Your task to perform on an android device: find which apps use the phone's location Image 0: 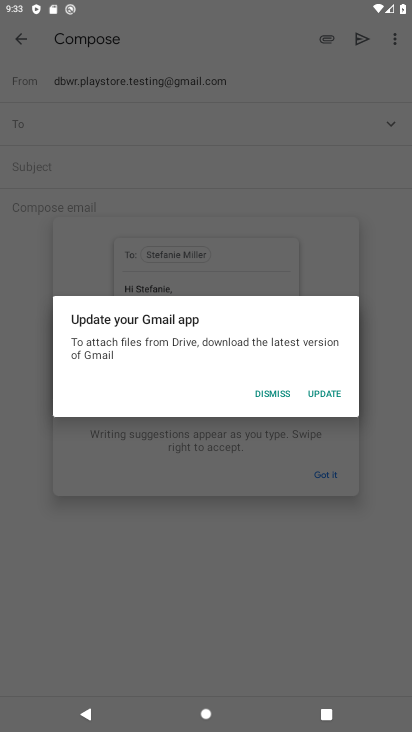
Step 0: press home button
Your task to perform on an android device: find which apps use the phone's location Image 1: 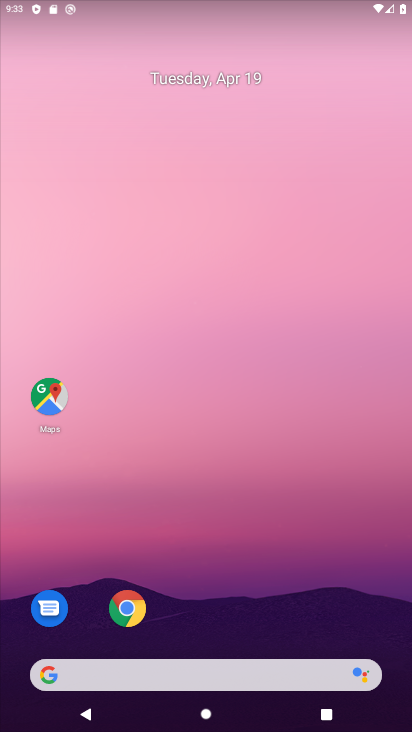
Step 1: drag from (205, 688) to (205, 12)
Your task to perform on an android device: find which apps use the phone's location Image 2: 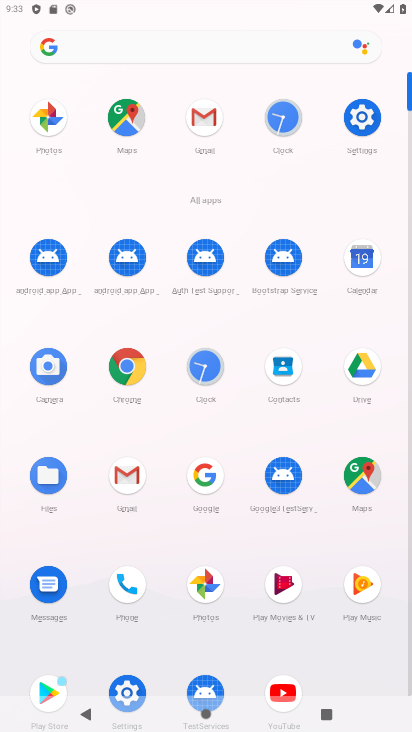
Step 2: click (357, 117)
Your task to perform on an android device: find which apps use the phone's location Image 3: 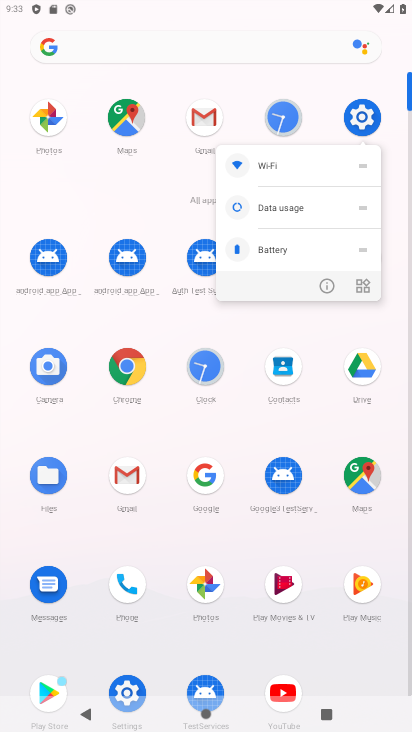
Step 3: click (355, 115)
Your task to perform on an android device: find which apps use the phone's location Image 4: 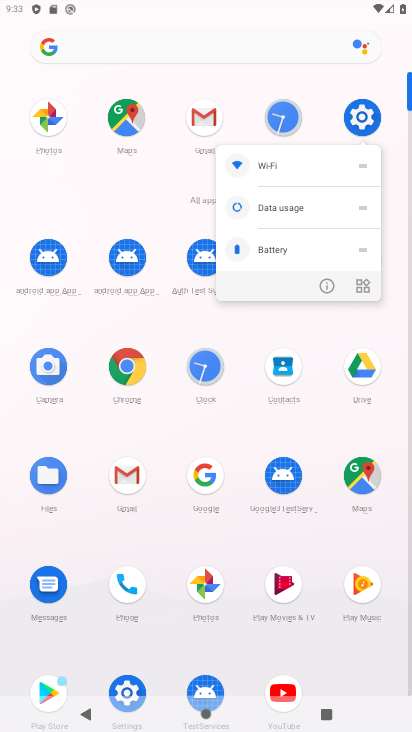
Step 4: click (355, 115)
Your task to perform on an android device: find which apps use the phone's location Image 5: 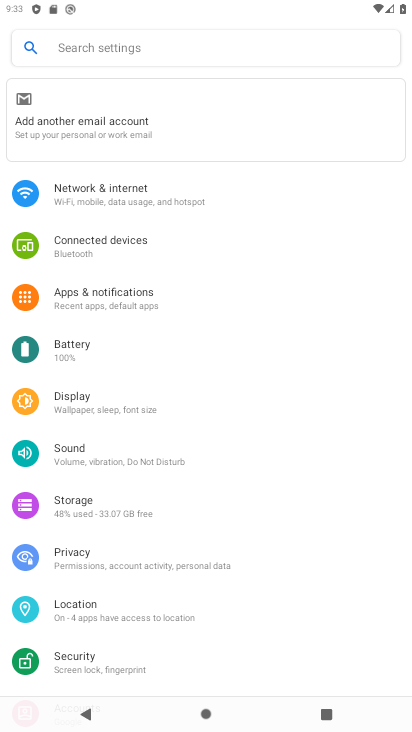
Step 5: click (97, 609)
Your task to perform on an android device: find which apps use the phone's location Image 6: 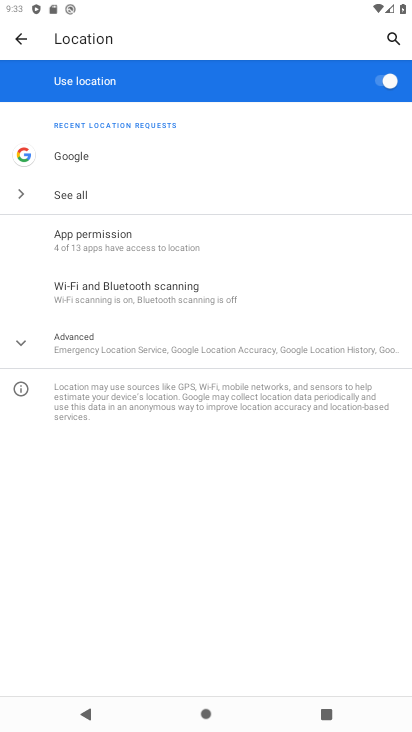
Step 6: click (74, 230)
Your task to perform on an android device: find which apps use the phone's location Image 7: 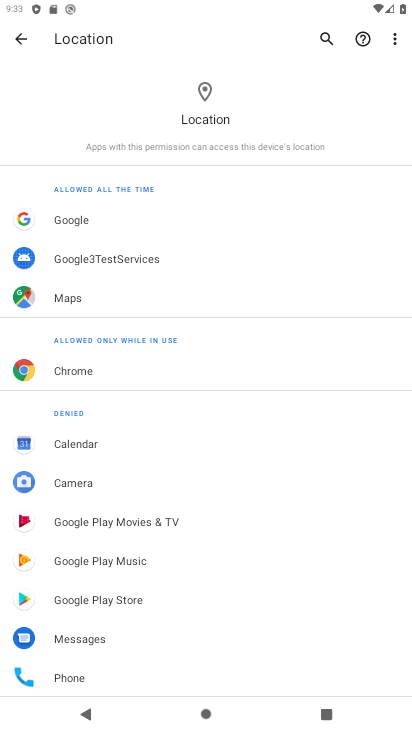
Step 7: task complete